Your task to perform on an android device: What's the weather going to be this weekend? Image 0: 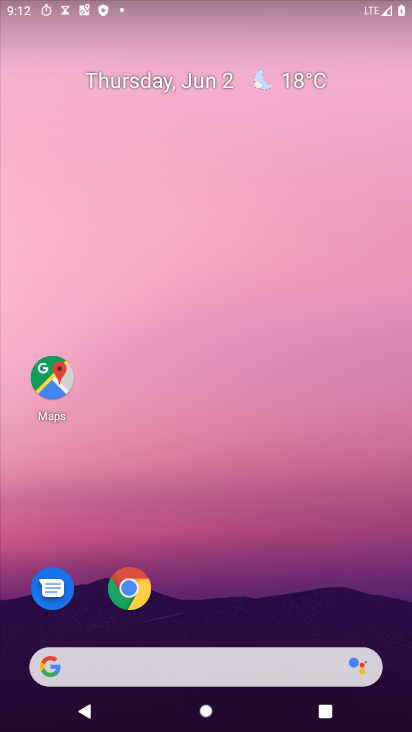
Step 0: click (269, 76)
Your task to perform on an android device: What's the weather going to be this weekend? Image 1: 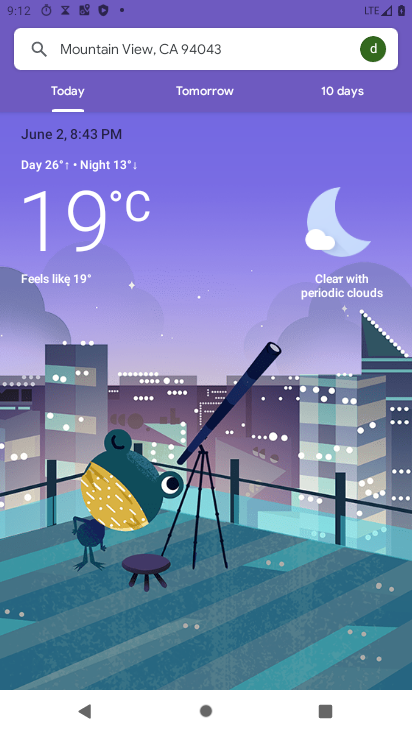
Step 1: click (336, 91)
Your task to perform on an android device: What's the weather going to be this weekend? Image 2: 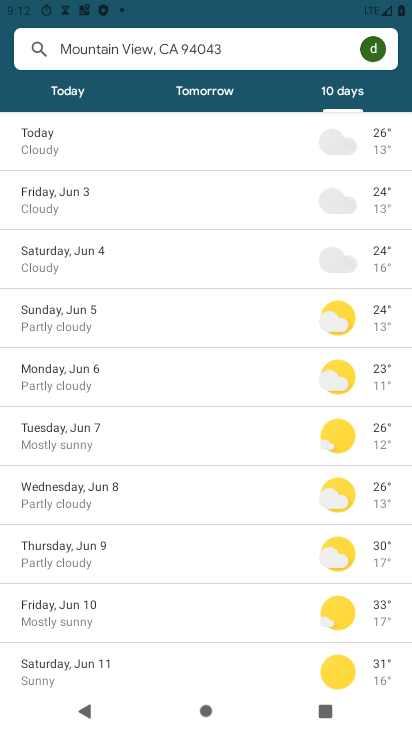
Step 2: task complete